Your task to perform on an android device: toggle show notifications on the lock screen Image 0: 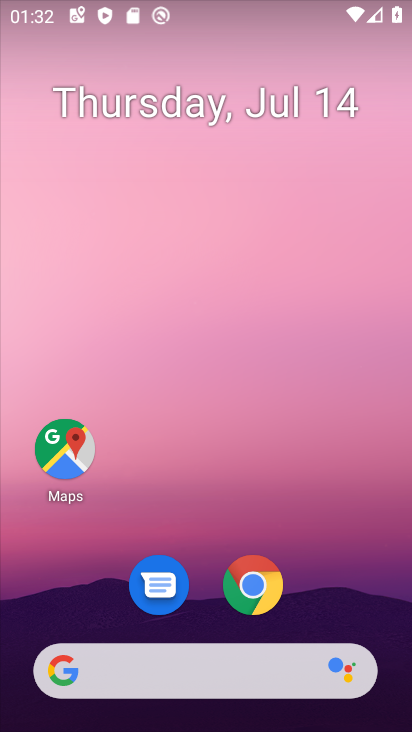
Step 0: drag from (343, 591) to (289, 61)
Your task to perform on an android device: toggle show notifications on the lock screen Image 1: 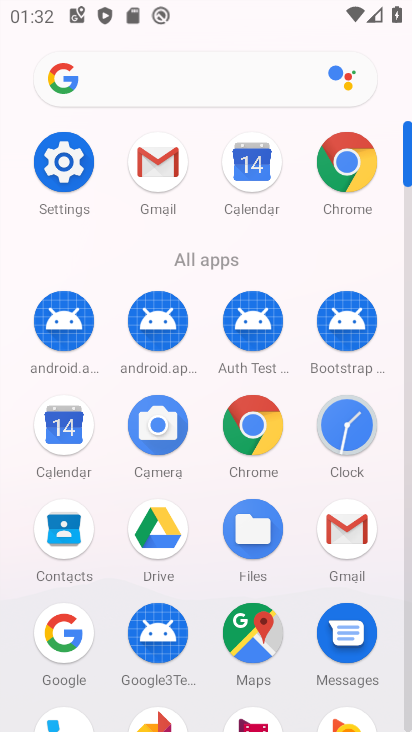
Step 1: click (64, 162)
Your task to perform on an android device: toggle show notifications on the lock screen Image 2: 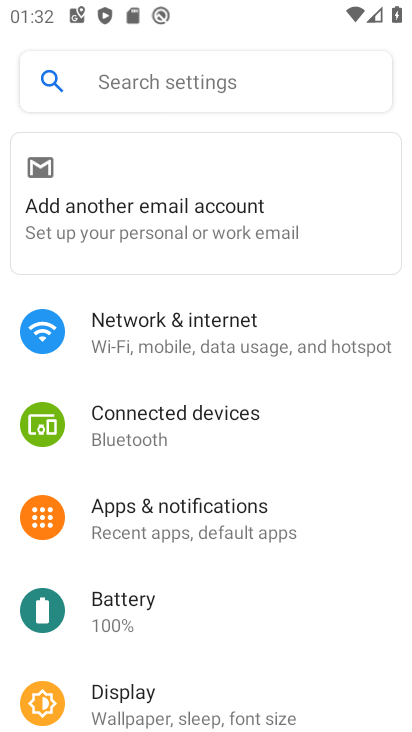
Step 2: click (229, 525)
Your task to perform on an android device: toggle show notifications on the lock screen Image 3: 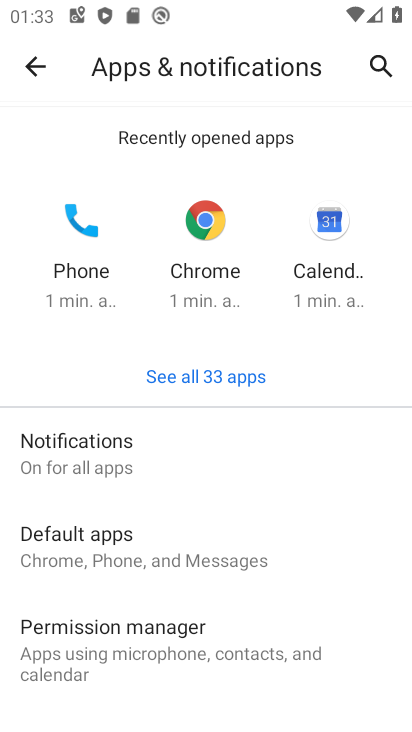
Step 3: drag from (217, 493) to (204, 410)
Your task to perform on an android device: toggle show notifications on the lock screen Image 4: 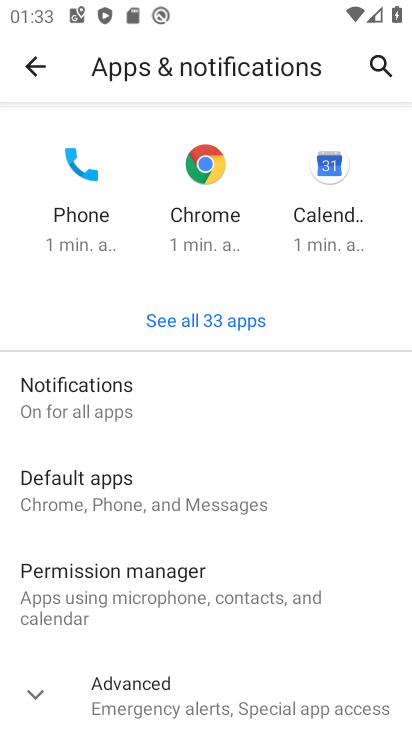
Step 4: click (107, 387)
Your task to perform on an android device: toggle show notifications on the lock screen Image 5: 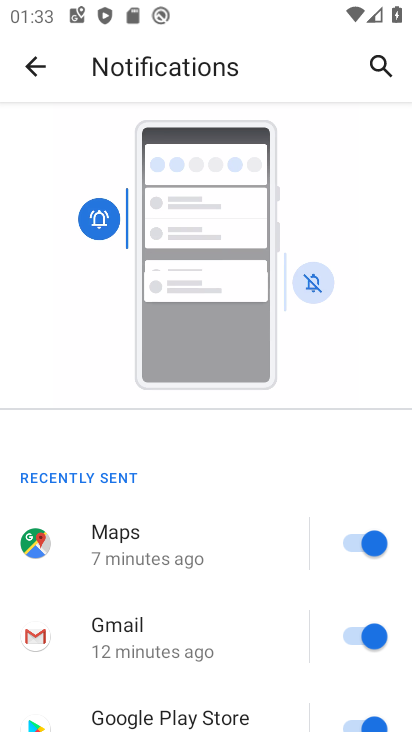
Step 5: drag from (209, 636) to (224, 148)
Your task to perform on an android device: toggle show notifications on the lock screen Image 6: 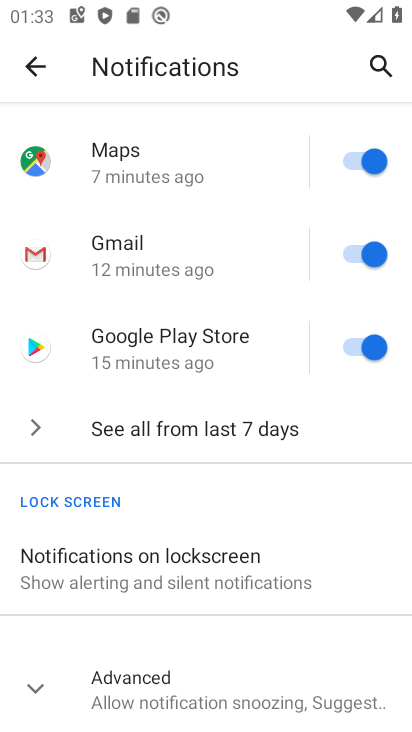
Step 6: click (220, 563)
Your task to perform on an android device: toggle show notifications on the lock screen Image 7: 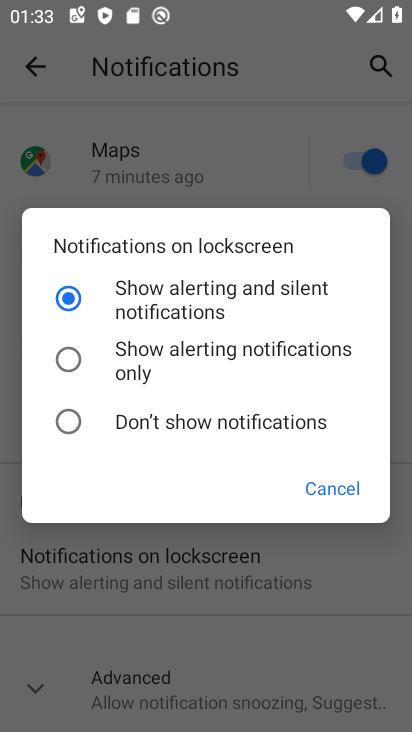
Step 7: click (68, 411)
Your task to perform on an android device: toggle show notifications on the lock screen Image 8: 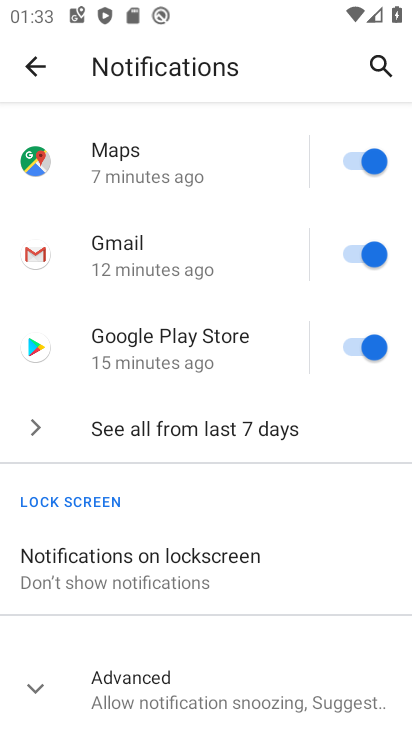
Step 8: task complete